Your task to perform on an android device: When is my next meeting? Image 0: 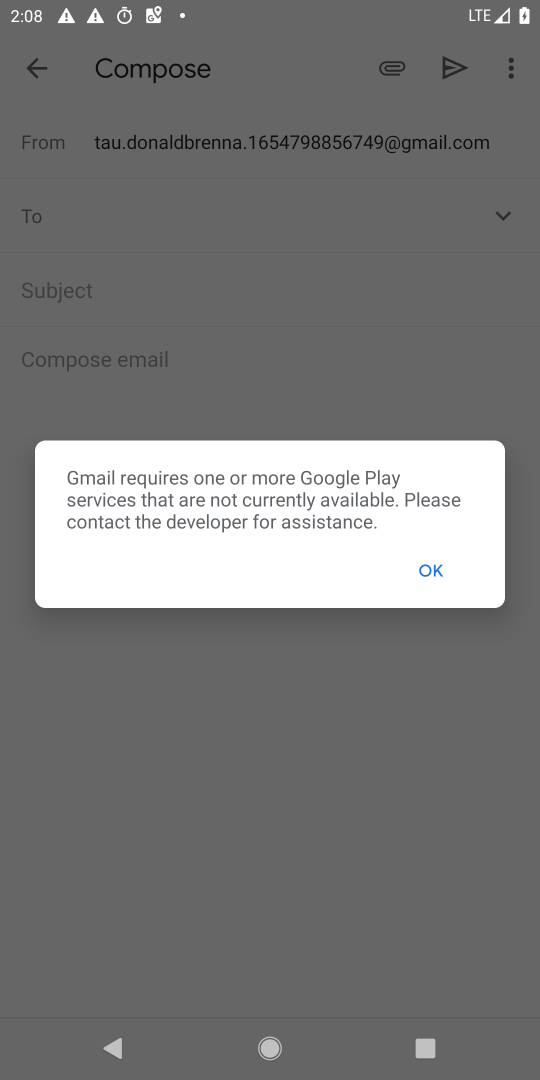
Step 0: press home button
Your task to perform on an android device: When is my next meeting? Image 1: 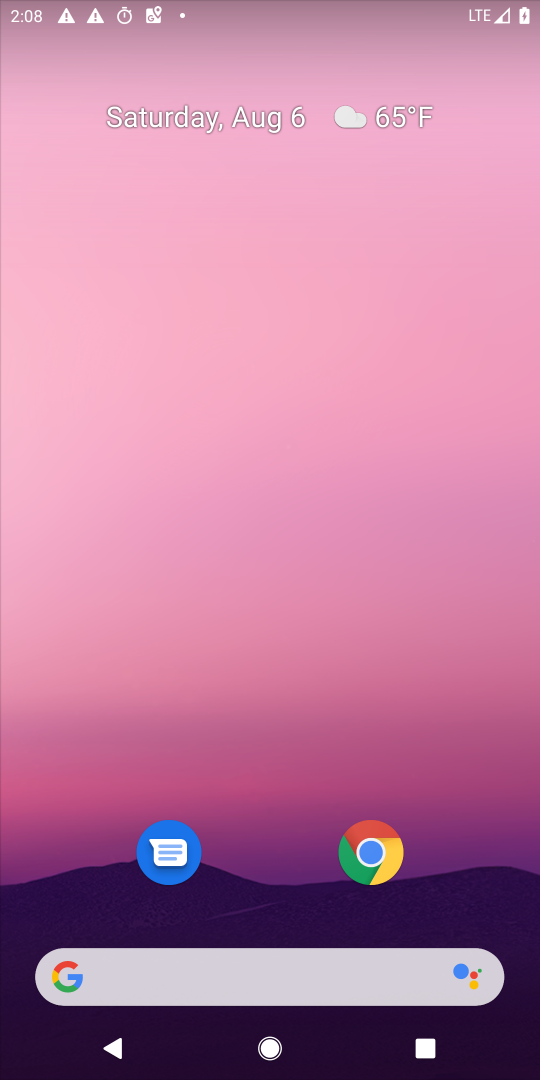
Step 1: drag from (315, 1021) to (339, 311)
Your task to perform on an android device: When is my next meeting? Image 2: 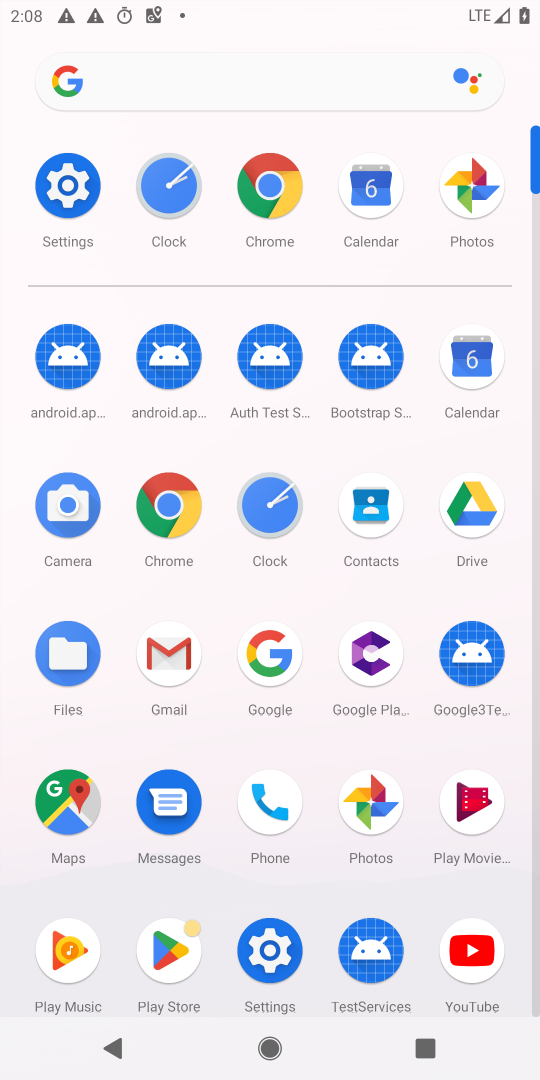
Step 2: click (469, 352)
Your task to perform on an android device: When is my next meeting? Image 3: 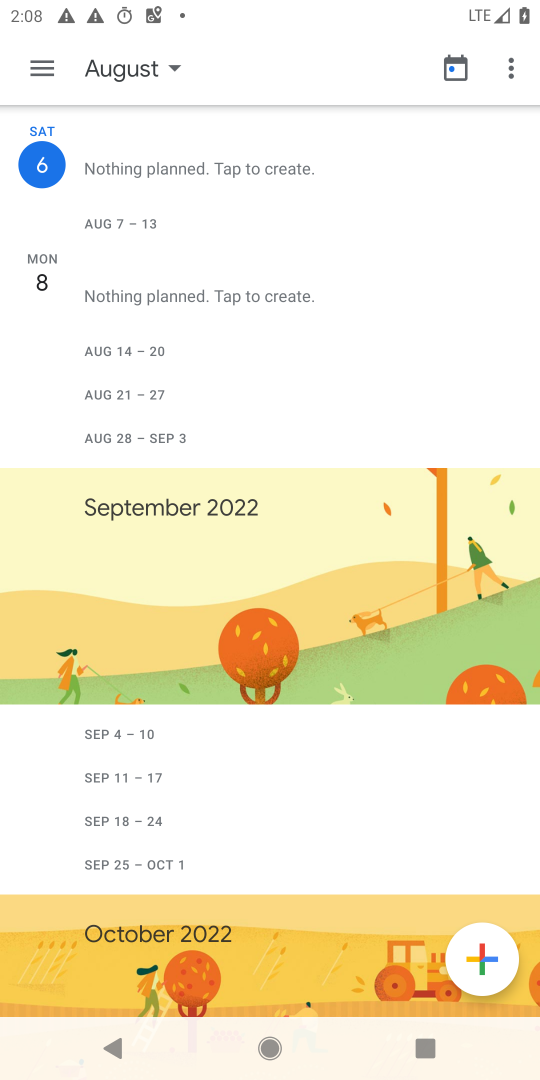
Step 3: click (41, 74)
Your task to perform on an android device: When is my next meeting? Image 4: 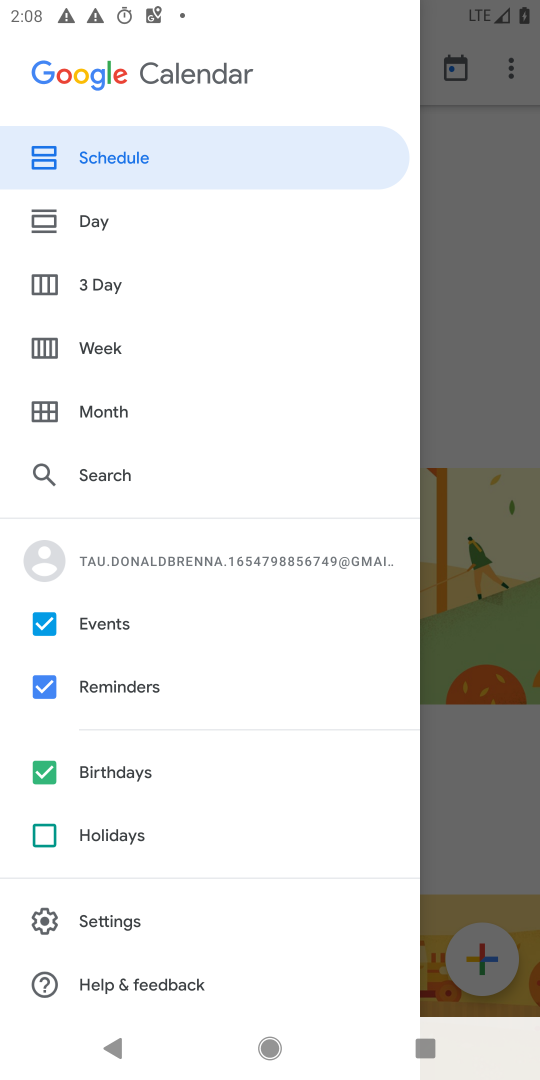
Step 4: click (115, 417)
Your task to perform on an android device: When is my next meeting? Image 5: 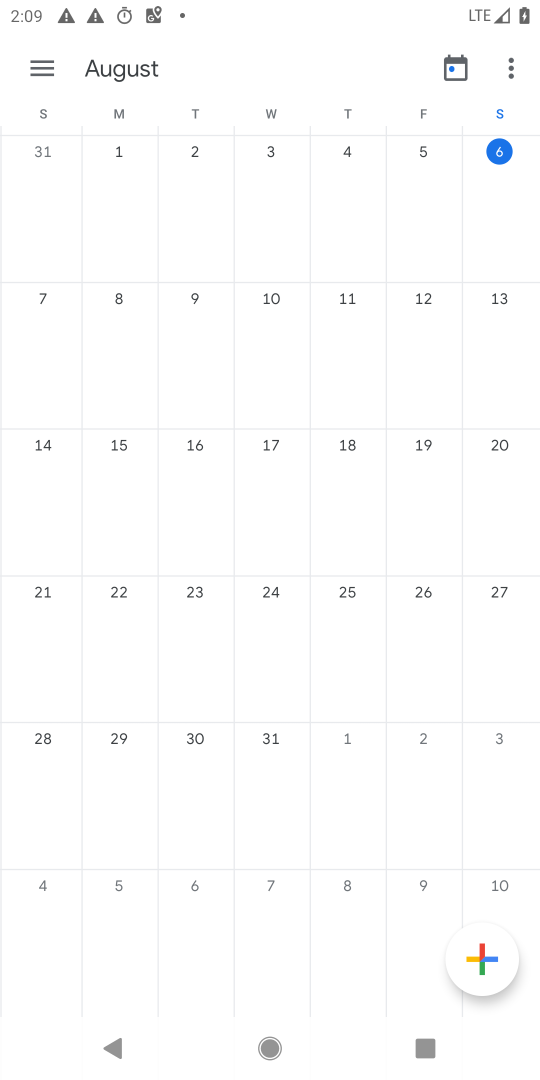
Step 5: click (499, 142)
Your task to perform on an android device: When is my next meeting? Image 6: 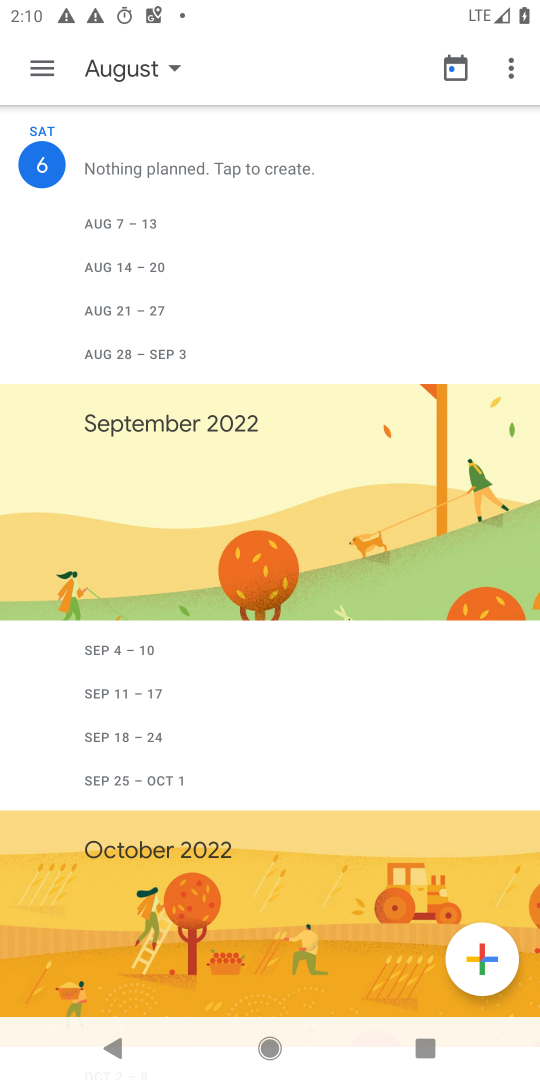
Step 6: task complete